Your task to perform on an android device: change the upload size in google photos Image 0: 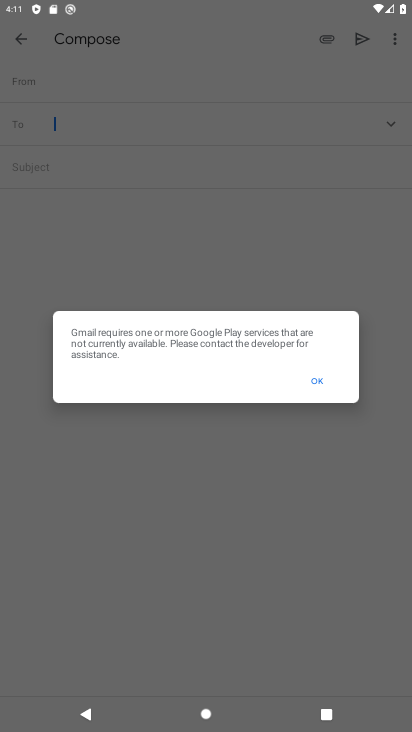
Step 0: press home button
Your task to perform on an android device: change the upload size in google photos Image 1: 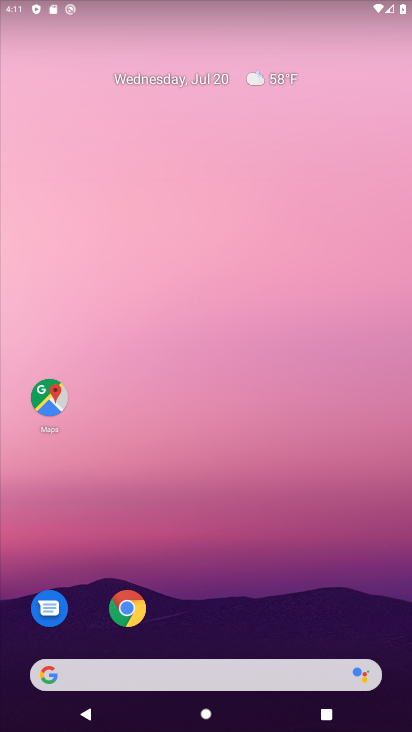
Step 1: drag from (195, 639) to (92, 66)
Your task to perform on an android device: change the upload size in google photos Image 2: 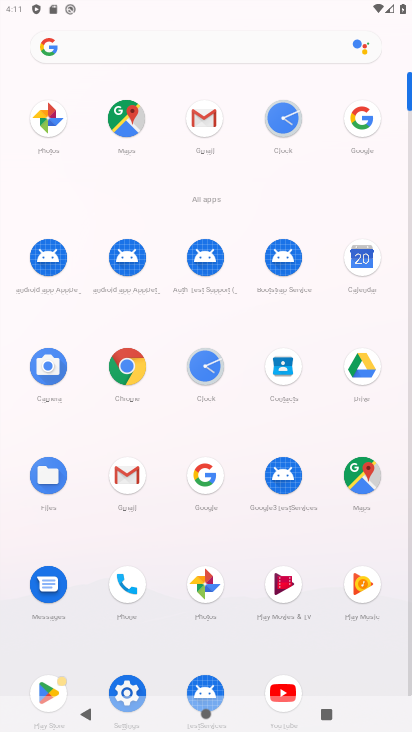
Step 2: click (212, 584)
Your task to perform on an android device: change the upload size in google photos Image 3: 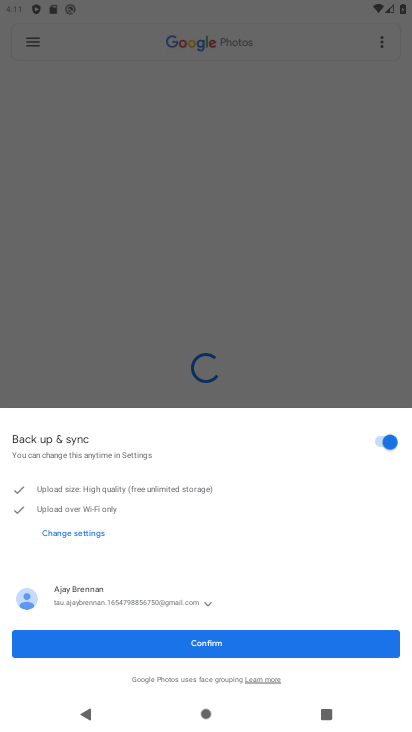
Step 3: click (72, 528)
Your task to perform on an android device: change the upload size in google photos Image 4: 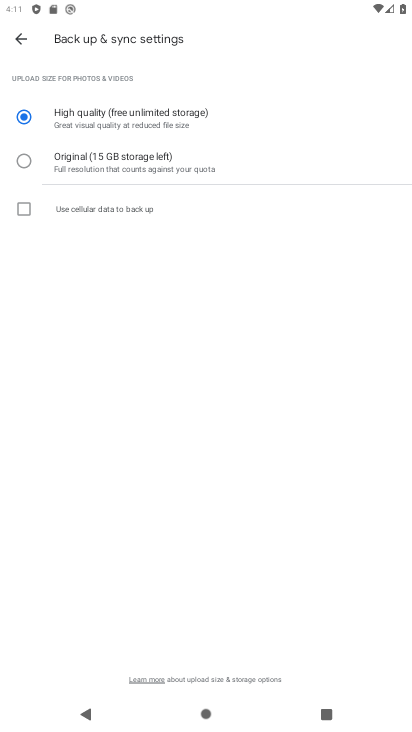
Step 4: click (18, 146)
Your task to perform on an android device: change the upload size in google photos Image 5: 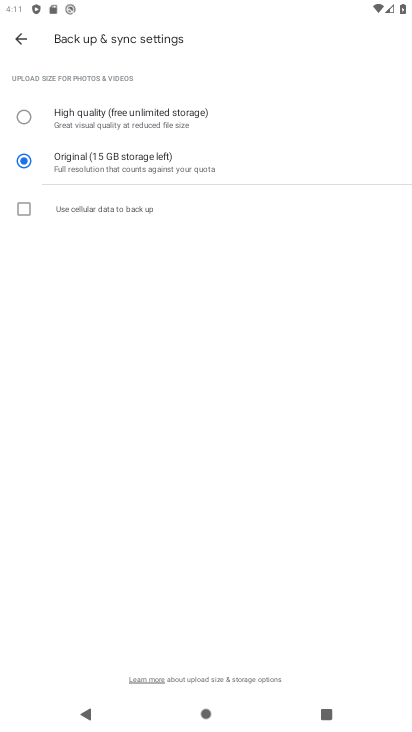
Step 5: task complete